Your task to perform on an android device: add a label to a message in the gmail app Image 0: 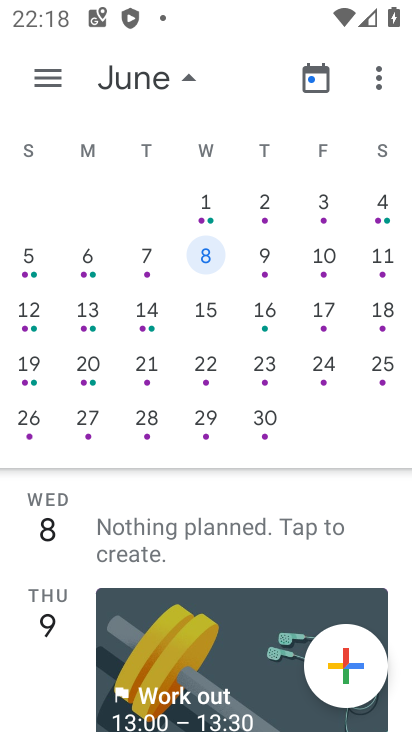
Step 0: press home button
Your task to perform on an android device: add a label to a message in the gmail app Image 1: 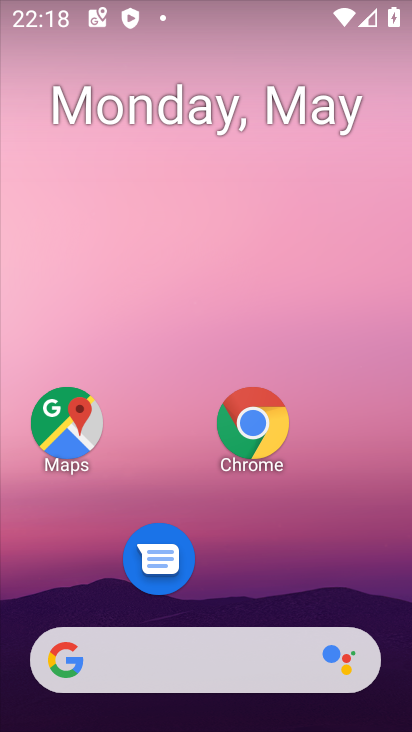
Step 1: drag from (215, 603) to (255, 25)
Your task to perform on an android device: add a label to a message in the gmail app Image 2: 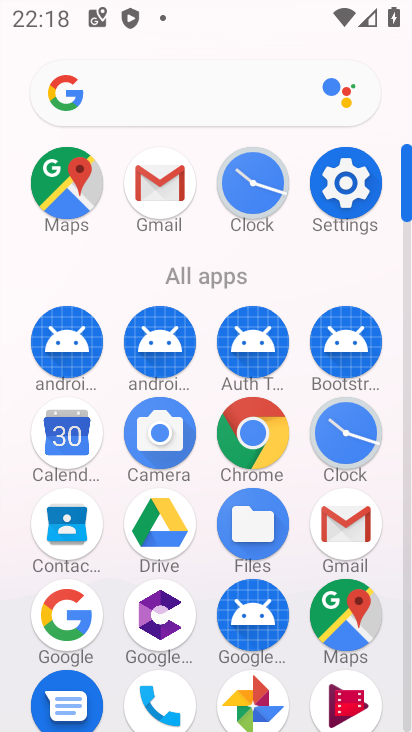
Step 2: click (146, 159)
Your task to perform on an android device: add a label to a message in the gmail app Image 3: 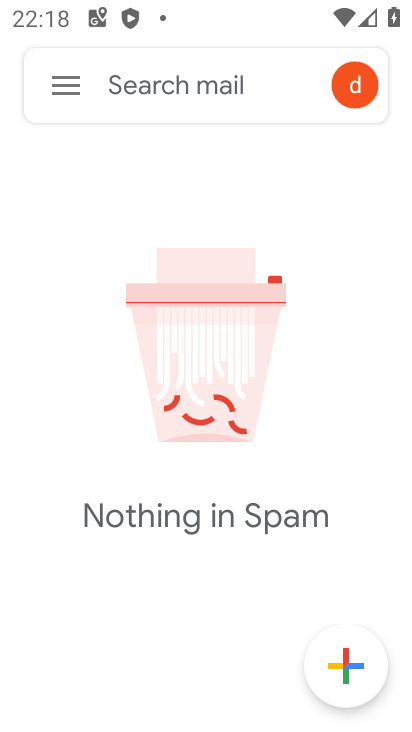
Step 3: click (48, 78)
Your task to perform on an android device: add a label to a message in the gmail app Image 4: 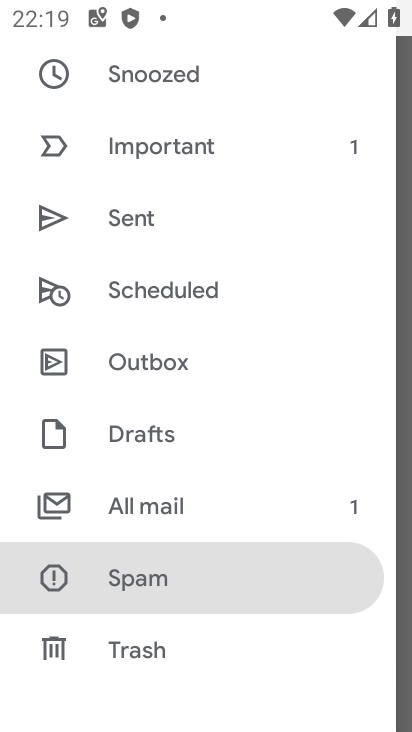
Step 4: drag from (246, 261) to (161, 718)
Your task to perform on an android device: add a label to a message in the gmail app Image 5: 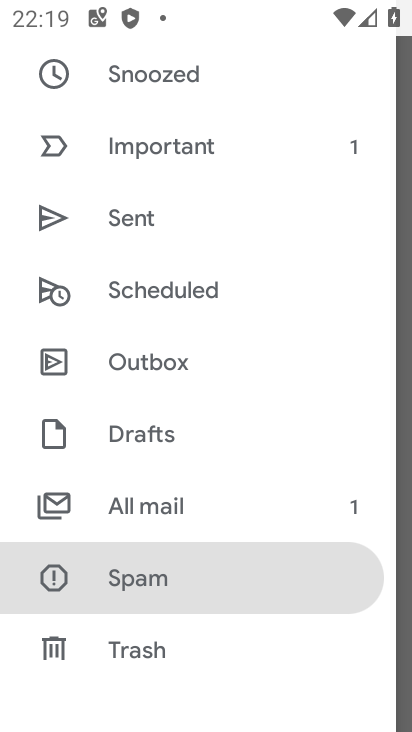
Step 5: click (169, 514)
Your task to perform on an android device: add a label to a message in the gmail app Image 6: 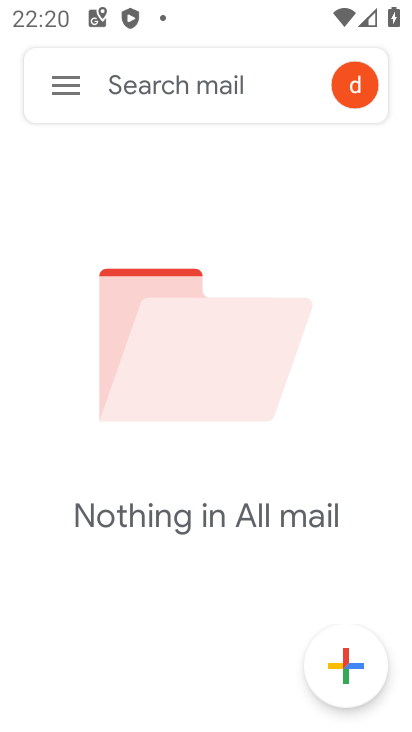
Step 6: task complete